Your task to perform on an android device: check the backup settings in the google photos Image 0: 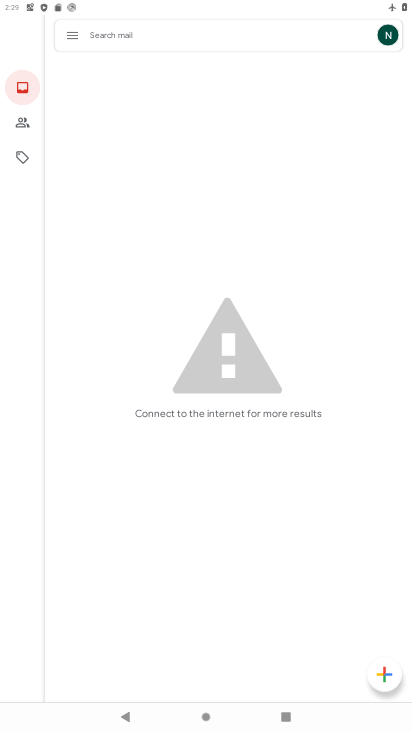
Step 0: press home button
Your task to perform on an android device: check the backup settings in the google photos Image 1: 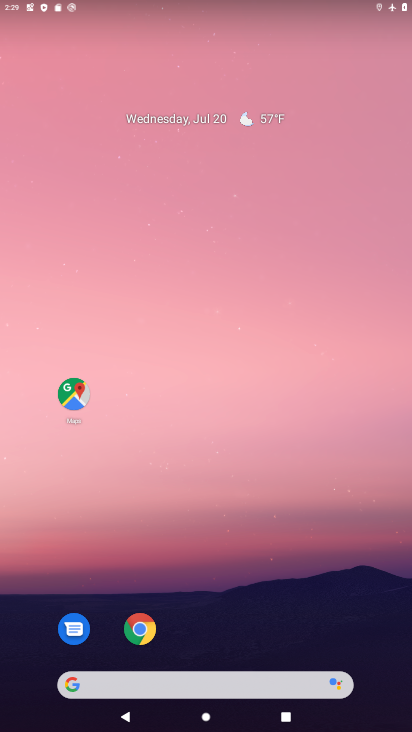
Step 1: drag from (220, 631) to (277, 179)
Your task to perform on an android device: check the backup settings in the google photos Image 2: 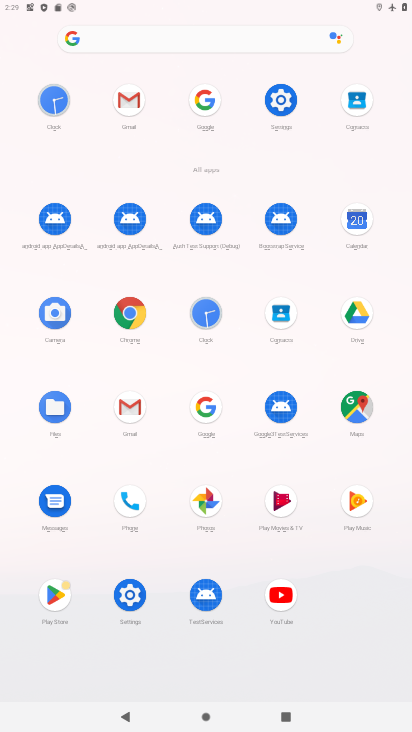
Step 2: click (209, 509)
Your task to perform on an android device: check the backup settings in the google photos Image 3: 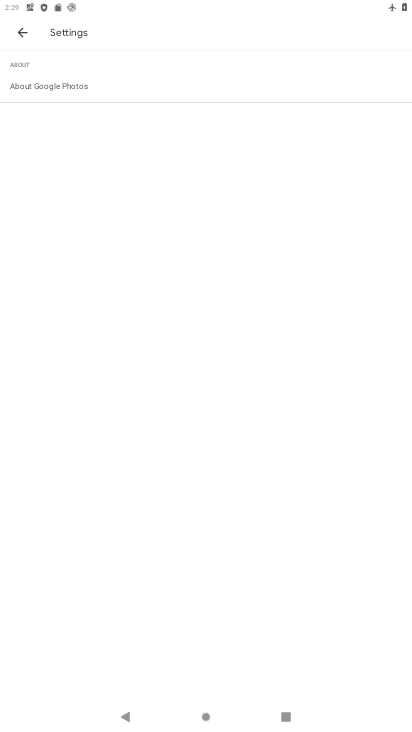
Step 3: click (15, 36)
Your task to perform on an android device: check the backup settings in the google photos Image 4: 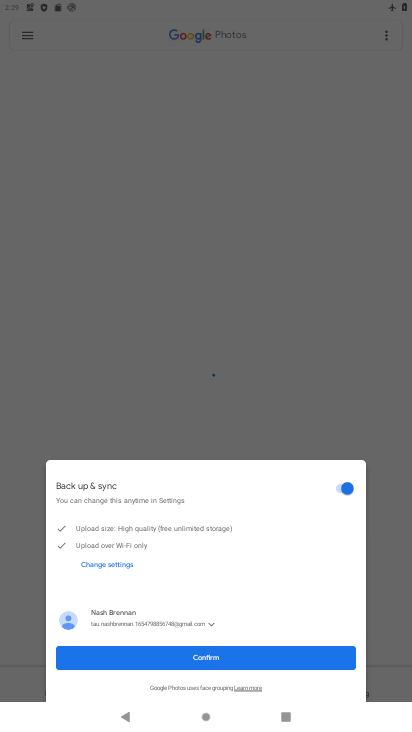
Step 4: click (163, 652)
Your task to perform on an android device: check the backup settings in the google photos Image 5: 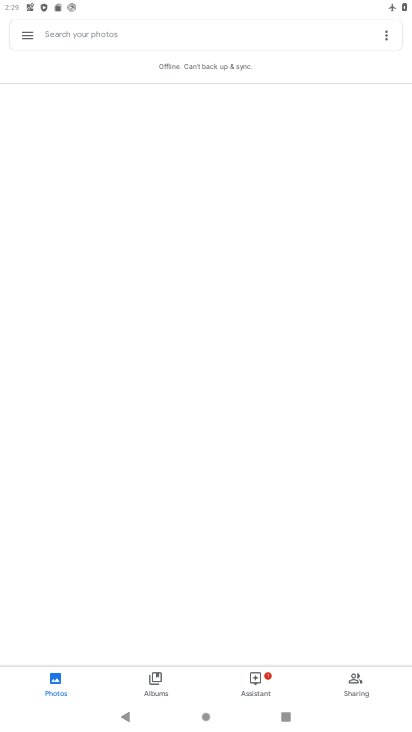
Step 5: click (21, 34)
Your task to perform on an android device: check the backup settings in the google photos Image 6: 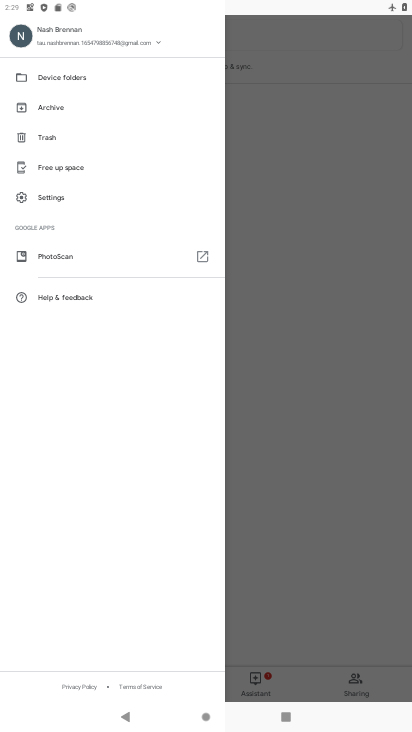
Step 6: click (72, 202)
Your task to perform on an android device: check the backup settings in the google photos Image 7: 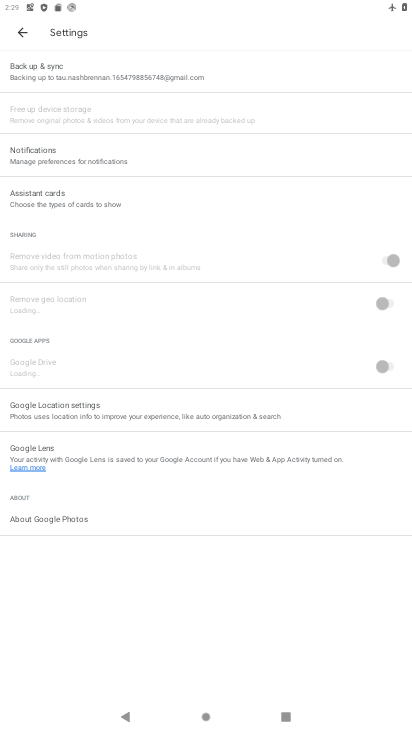
Step 7: click (67, 80)
Your task to perform on an android device: check the backup settings in the google photos Image 8: 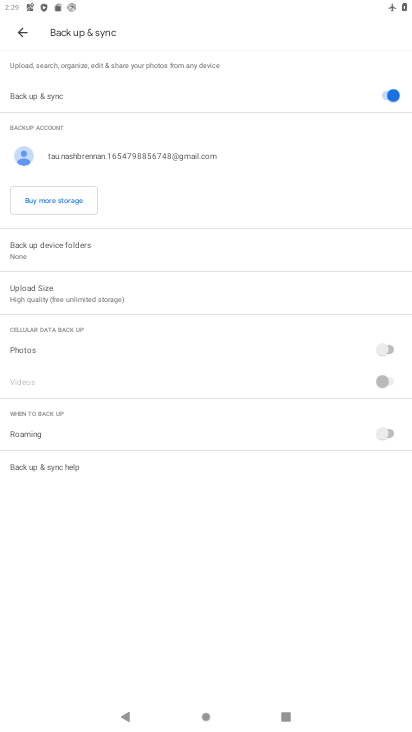
Step 8: task complete